Your task to perform on an android device: Do I have any events tomorrow? Image 0: 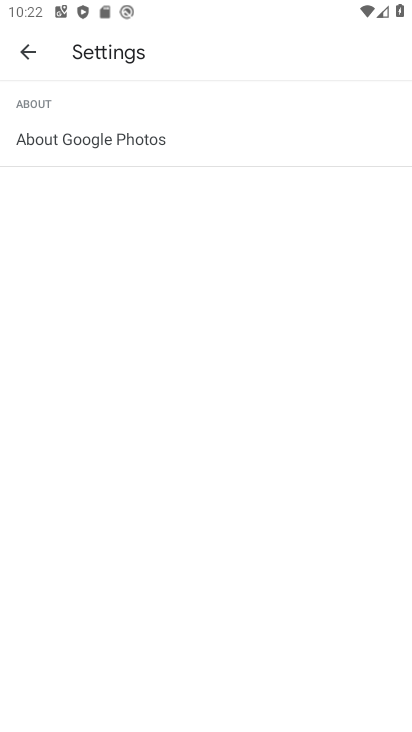
Step 0: press home button
Your task to perform on an android device: Do I have any events tomorrow? Image 1: 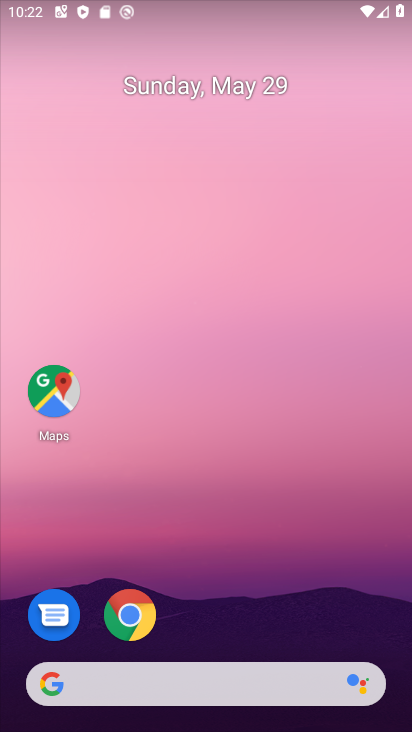
Step 1: drag from (186, 662) to (303, 0)
Your task to perform on an android device: Do I have any events tomorrow? Image 2: 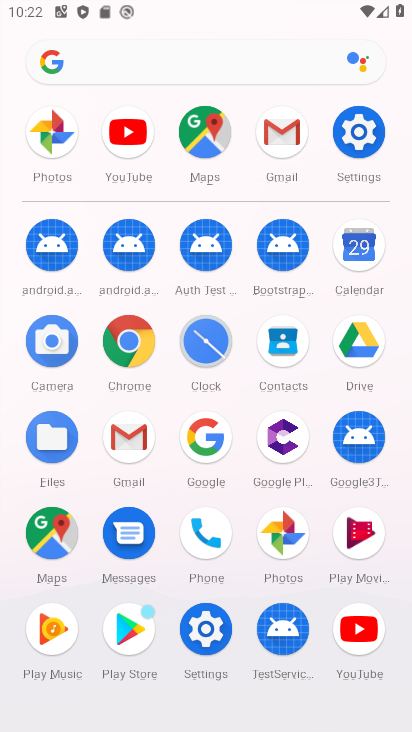
Step 2: click (348, 267)
Your task to perform on an android device: Do I have any events tomorrow? Image 3: 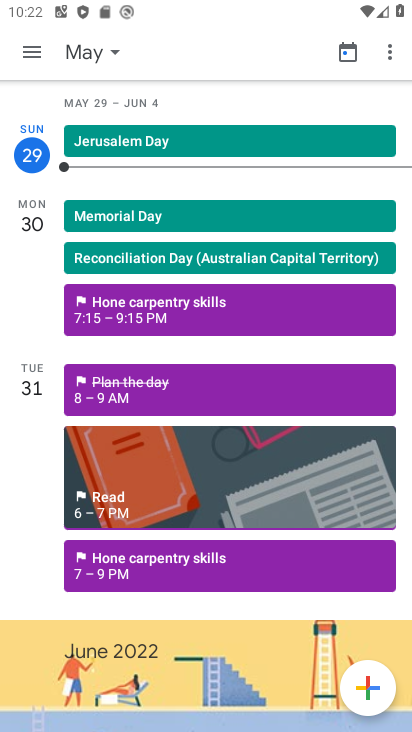
Step 3: click (33, 220)
Your task to perform on an android device: Do I have any events tomorrow? Image 4: 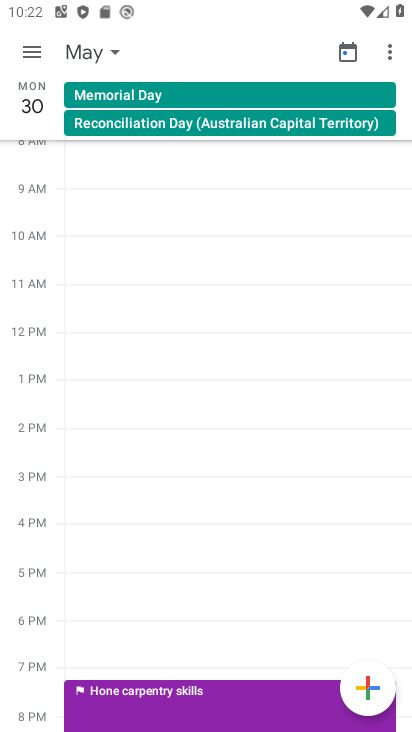
Step 4: task complete